Your task to perform on an android device: Do I have any events tomorrow? Image 0: 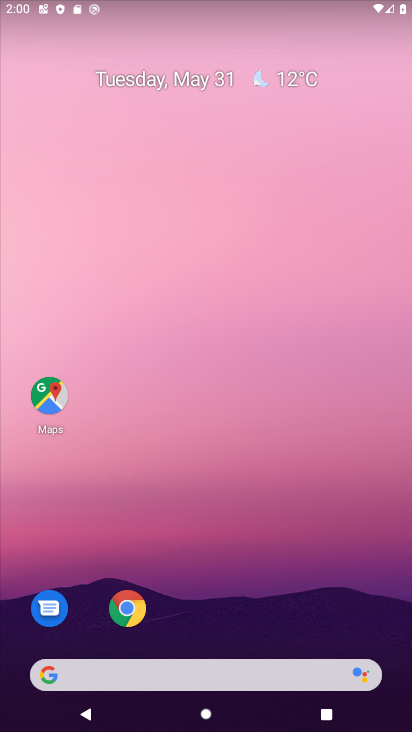
Step 0: drag from (334, 611) to (333, 206)
Your task to perform on an android device: Do I have any events tomorrow? Image 1: 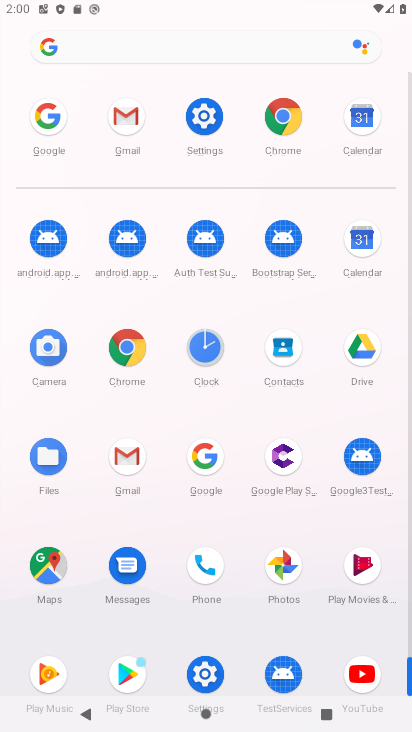
Step 1: click (366, 255)
Your task to perform on an android device: Do I have any events tomorrow? Image 2: 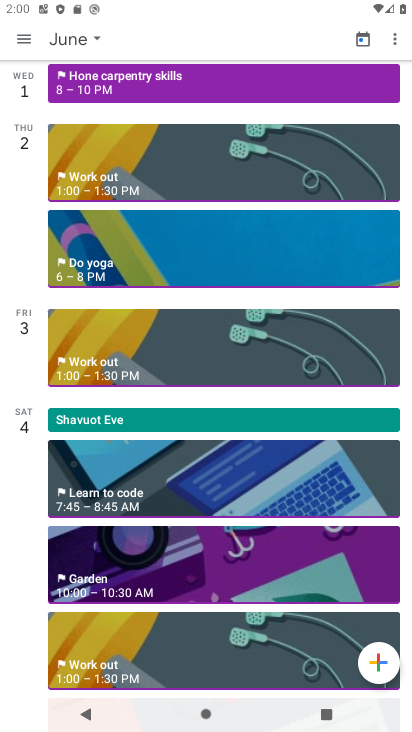
Step 2: task complete